Your task to perform on an android device: see tabs open on other devices in the chrome app Image 0: 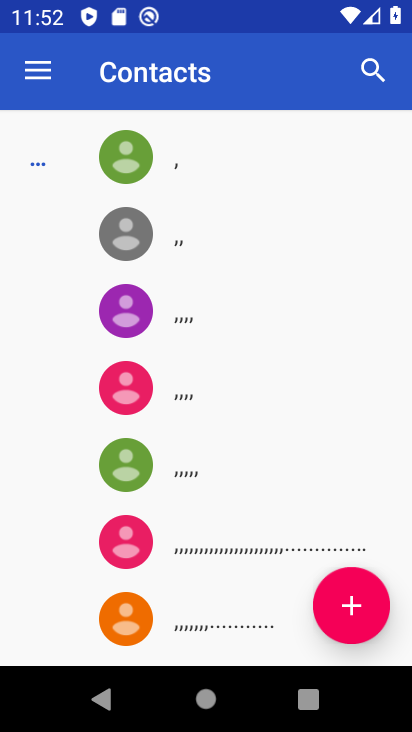
Step 0: press home button
Your task to perform on an android device: see tabs open on other devices in the chrome app Image 1: 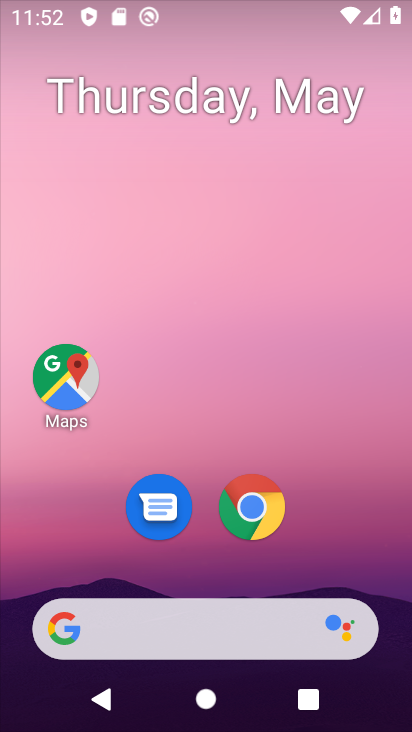
Step 1: drag from (160, 518) to (213, 60)
Your task to perform on an android device: see tabs open on other devices in the chrome app Image 2: 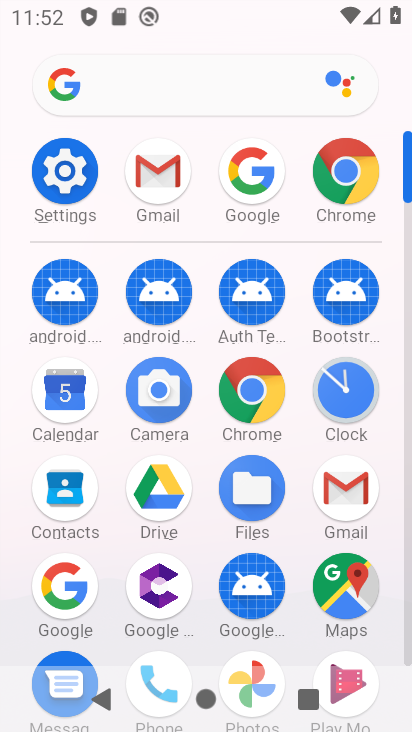
Step 2: click (244, 403)
Your task to perform on an android device: see tabs open on other devices in the chrome app Image 3: 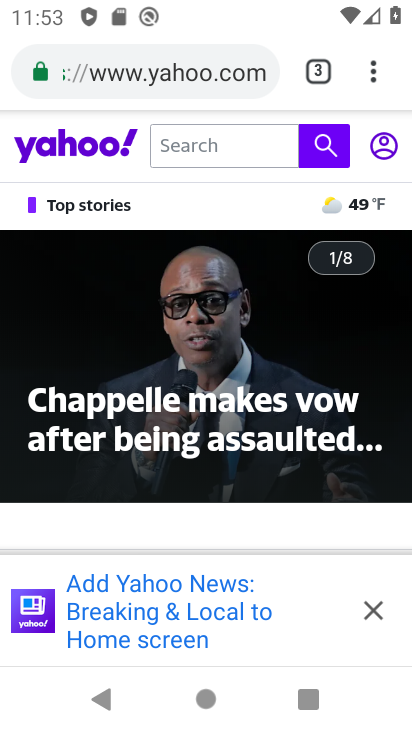
Step 3: task complete